Your task to perform on an android device: install app "LinkedIn" Image 0: 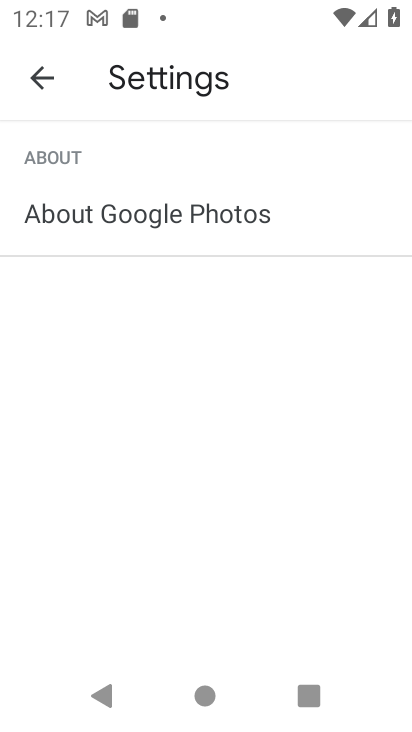
Step 0: press home button
Your task to perform on an android device: install app "LinkedIn" Image 1: 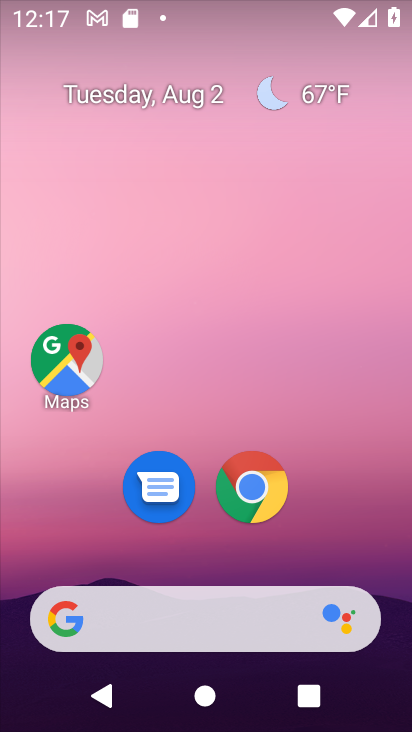
Step 1: drag from (196, 631) to (239, 71)
Your task to perform on an android device: install app "LinkedIn" Image 2: 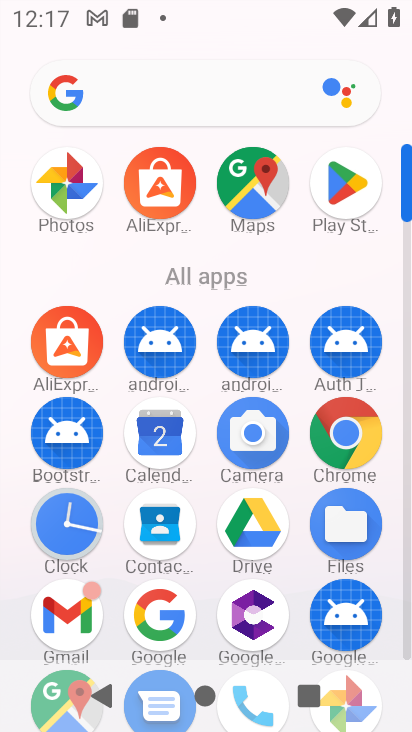
Step 2: click (349, 192)
Your task to perform on an android device: install app "LinkedIn" Image 3: 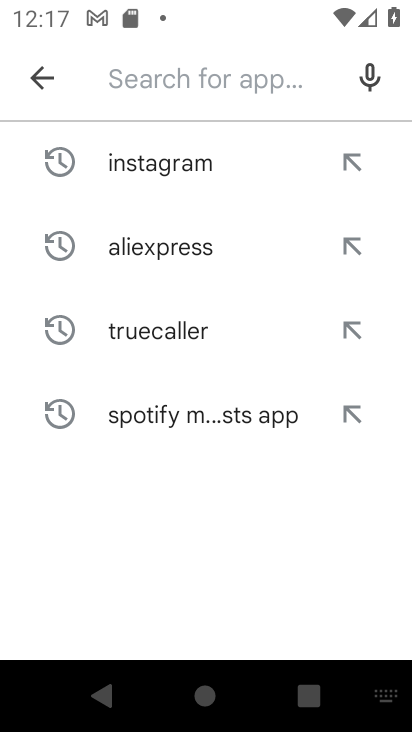
Step 3: type "LinkedIn"
Your task to perform on an android device: install app "LinkedIn" Image 4: 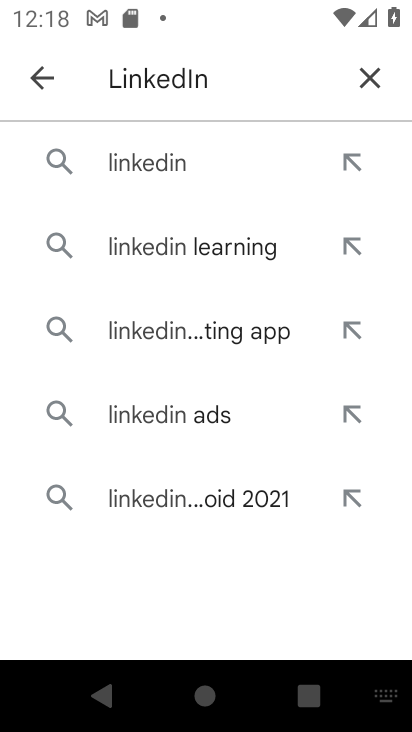
Step 4: click (242, 172)
Your task to perform on an android device: install app "LinkedIn" Image 5: 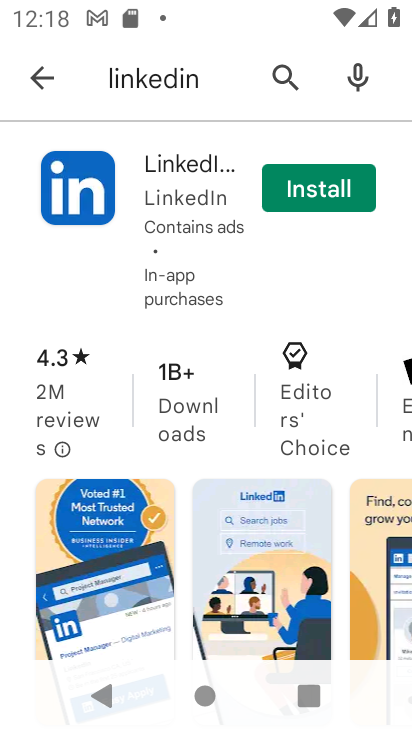
Step 5: click (320, 203)
Your task to perform on an android device: install app "LinkedIn" Image 6: 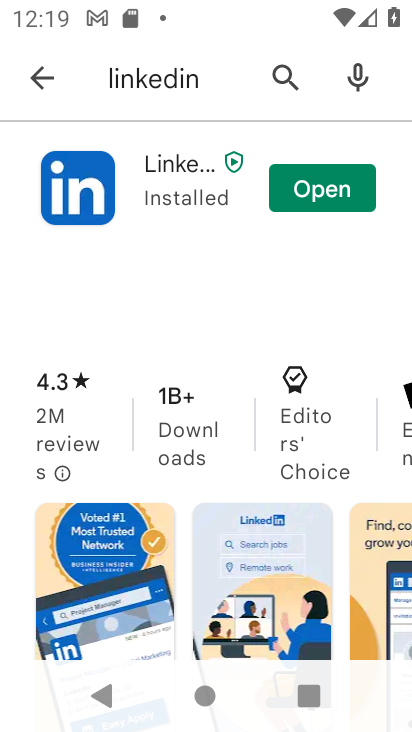
Step 6: task complete